Your task to perform on an android device: open the mobile data screen to see how much data has been used Image 0: 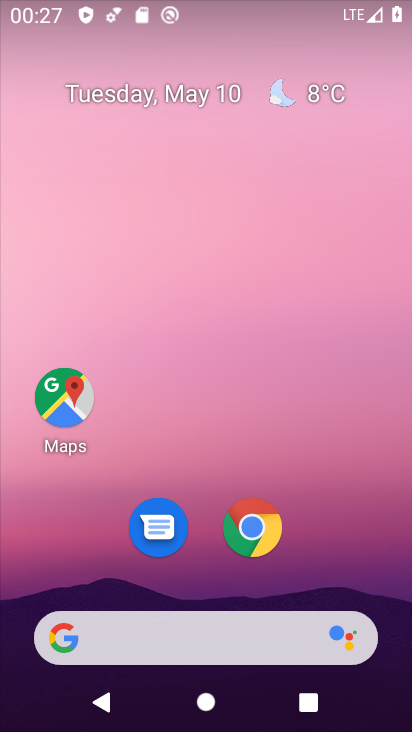
Step 0: drag from (359, 528) to (61, 97)
Your task to perform on an android device: open the mobile data screen to see how much data has been used Image 1: 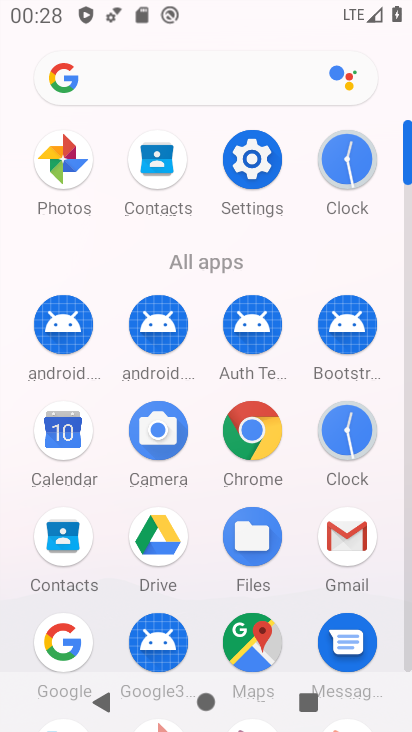
Step 1: click (262, 162)
Your task to perform on an android device: open the mobile data screen to see how much data has been used Image 2: 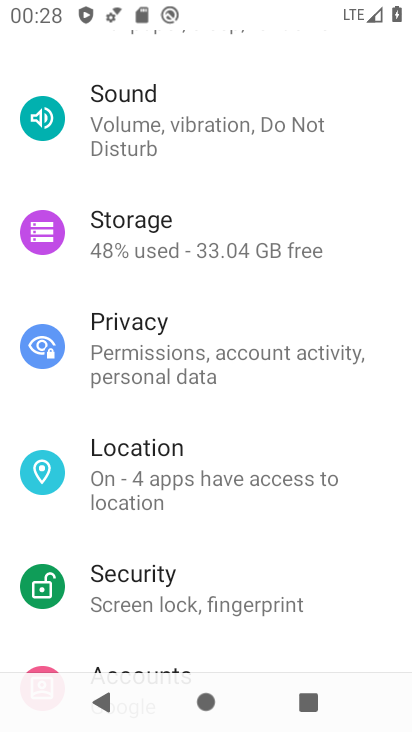
Step 2: drag from (164, 169) to (144, 587)
Your task to perform on an android device: open the mobile data screen to see how much data has been used Image 3: 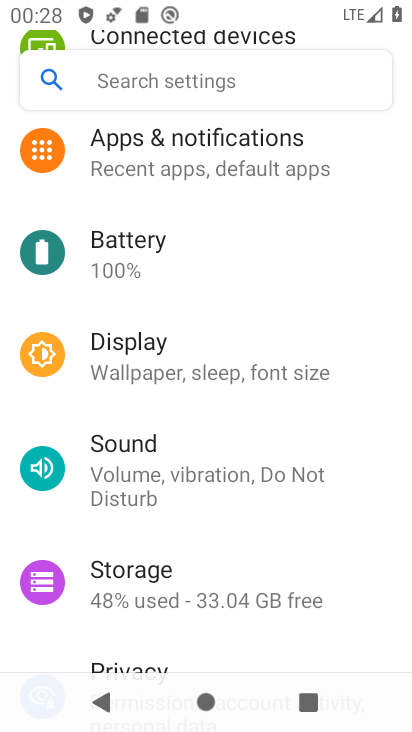
Step 3: drag from (193, 163) to (163, 627)
Your task to perform on an android device: open the mobile data screen to see how much data has been used Image 4: 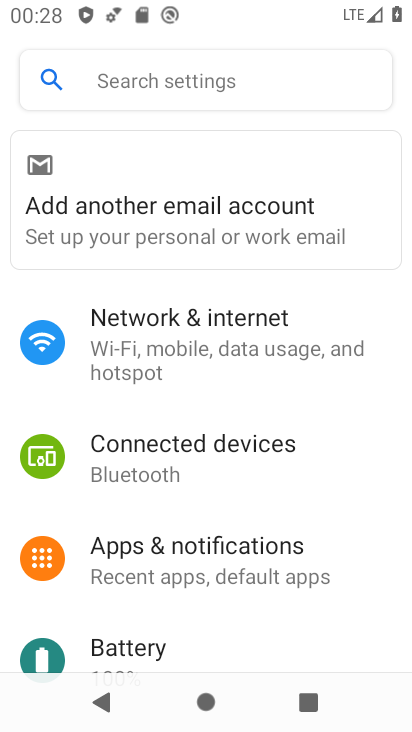
Step 4: click (203, 349)
Your task to perform on an android device: open the mobile data screen to see how much data has been used Image 5: 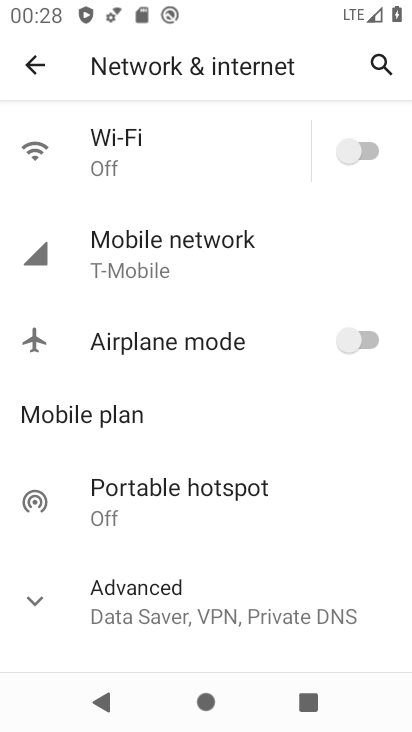
Step 5: click (139, 249)
Your task to perform on an android device: open the mobile data screen to see how much data has been used Image 6: 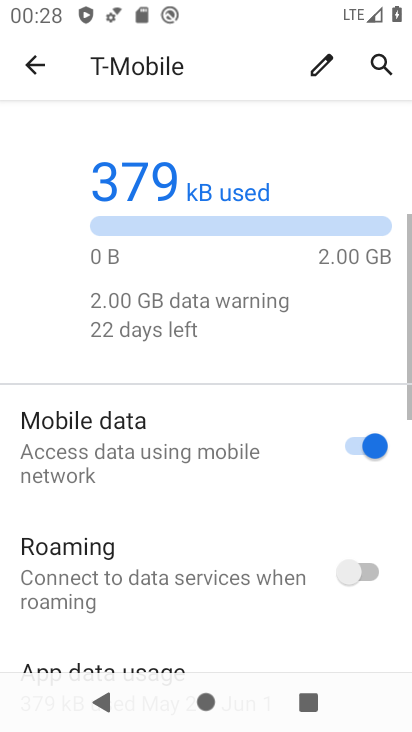
Step 6: task complete